Your task to perform on an android device: Go to Wikipedia Image 0: 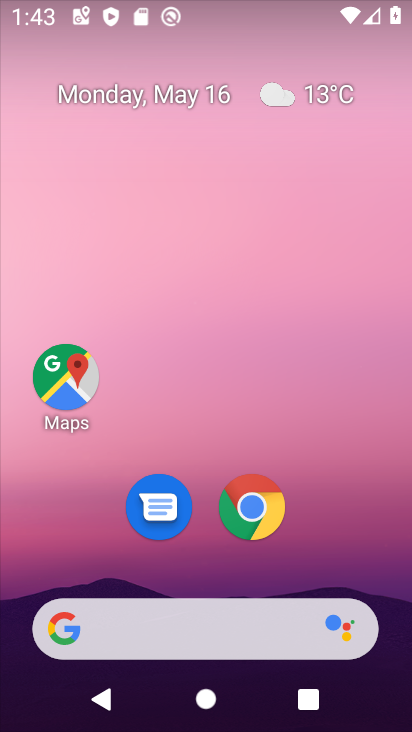
Step 0: drag from (379, 543) to (375, 92)
Your task to perform on an android device: Go to Wikipedia Image 1: 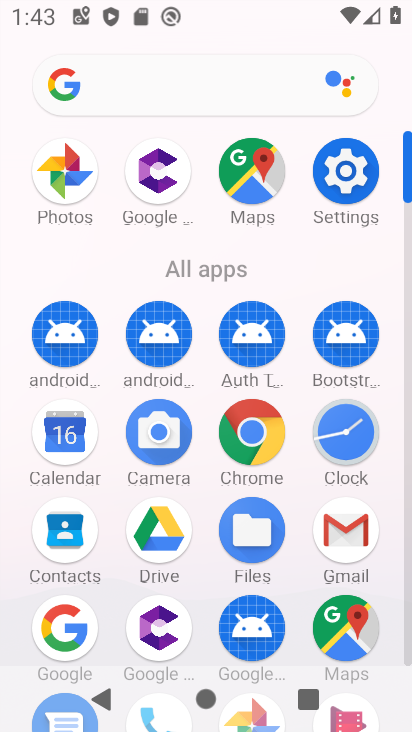
Step 1: click (256, 461)
Your task to perform on an android device: Go to Wikipedia Image 2: 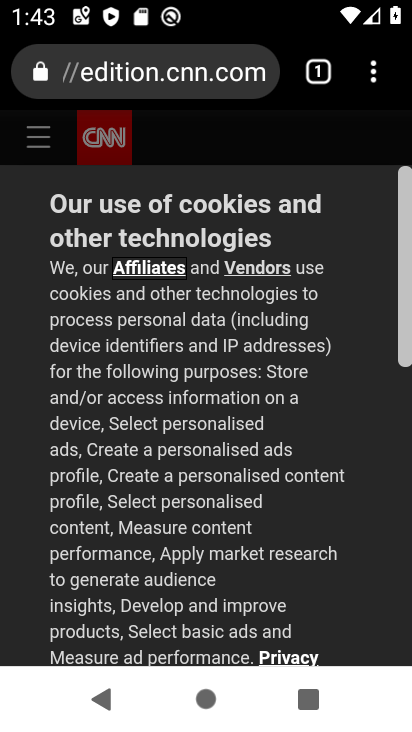
Step 2: press back button
Your task to perform on an android device: Go to Wikipedia Image 3: 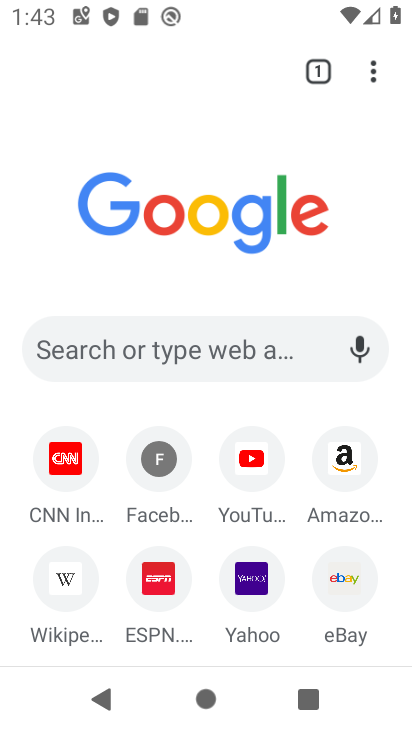
Step 3: click (58, 580)
Your task to perform on an android device: Go to Wikipedia Image 4: 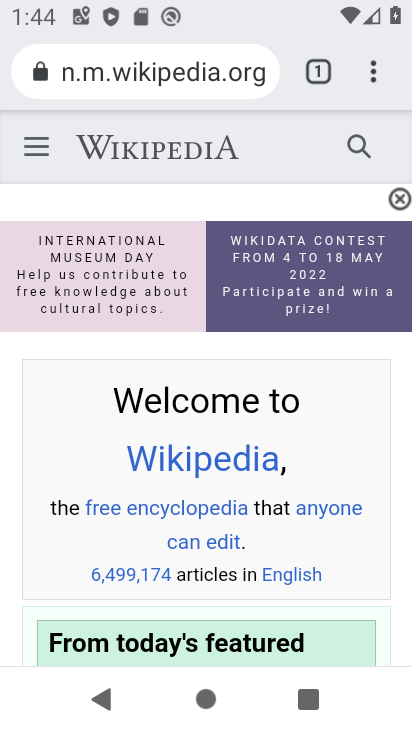
Step 4: task complete